Your task to perform on an android device: Open accessibility settings Image 0: 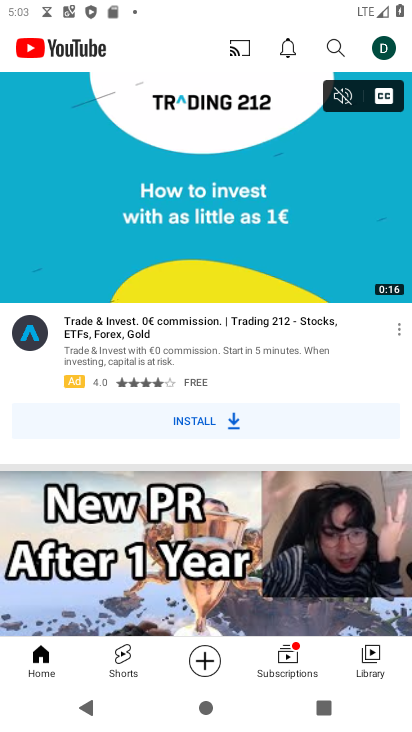
Step 0: press back button
Your task to perform on an android device: Open accessibility settings Image 1: 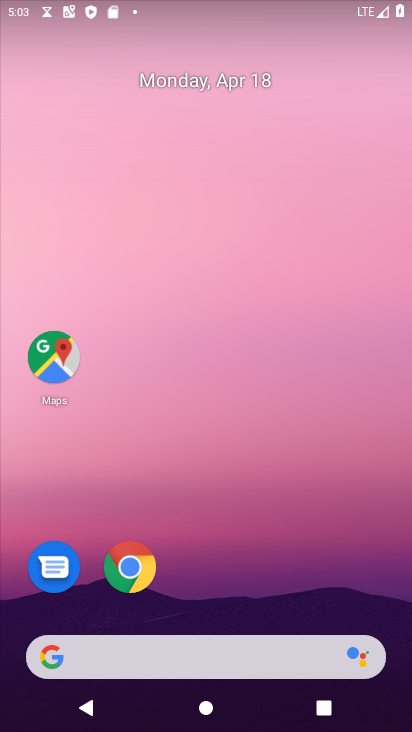
Step 1: drag from (235, 575) to (176, 10)
Your task to perform on an android device: Open accessibility settings Image 2: 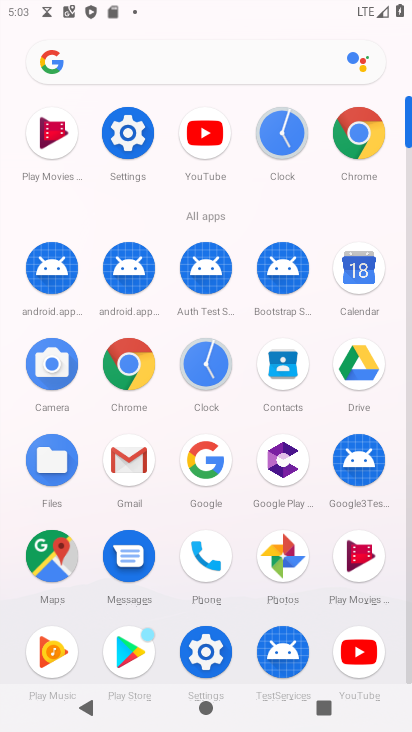
Step 2: click (123, 150)
Your task to perform on an android device: Open accessibility settings Image 3: 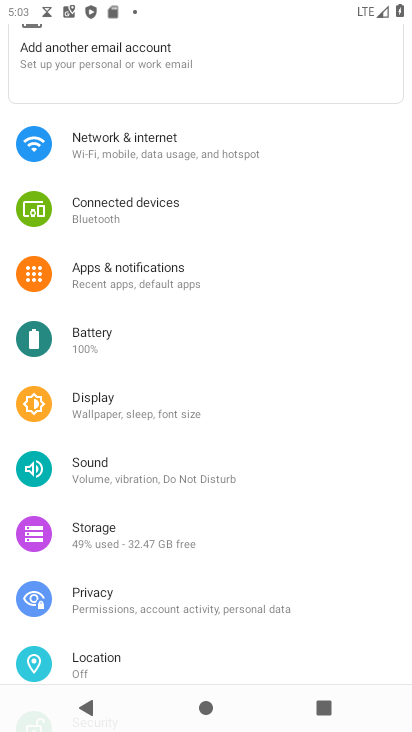
Step 3: drag from (171, 587) to (175, 513)
Your task to perform on an android device: Open accessibility settings Image 4: 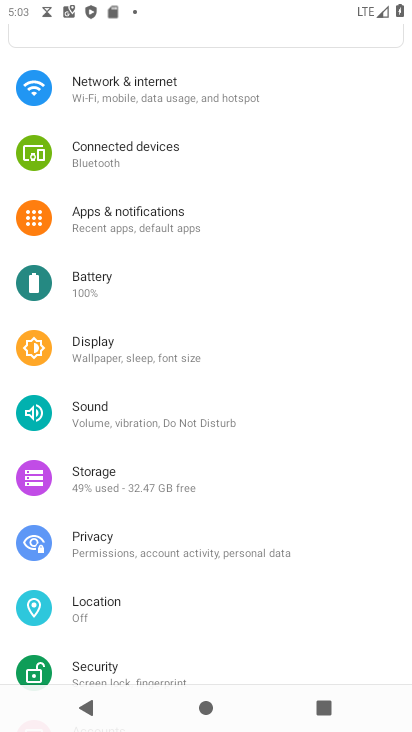
Step 4: drag from (168, 593) to (183, 518)
Your task to perform on an android device: Open accessibility settings Image 5: 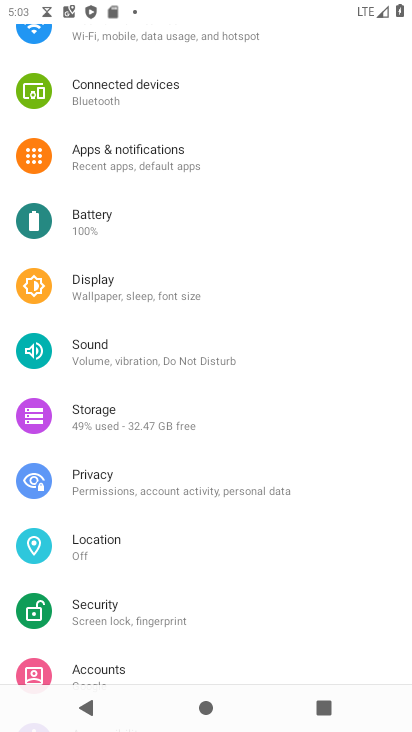
Step 5: drag from (204, 620) to (217, 544)
Your task to perform on an android device: Open accessibility settings Image 6: 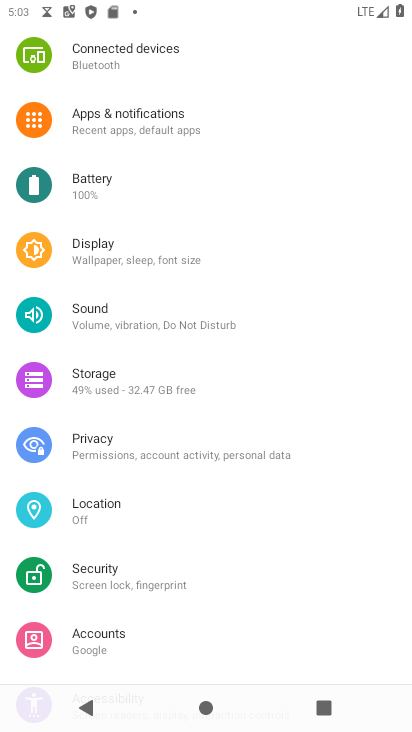
Step 6: drag from (173, 656) to (184, 605)
Your task to perform on an android device: Open accessibility settings Image 7: 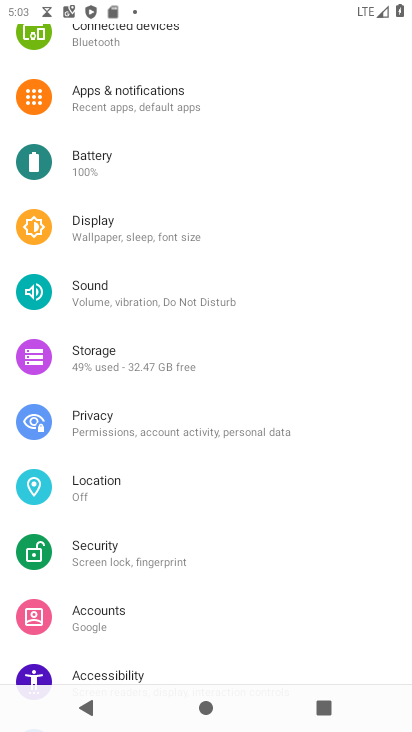
Step 7: drag from (163, 638) to (168, 570)
Your task to perform on an android device: Open accessibility settings Image 8: 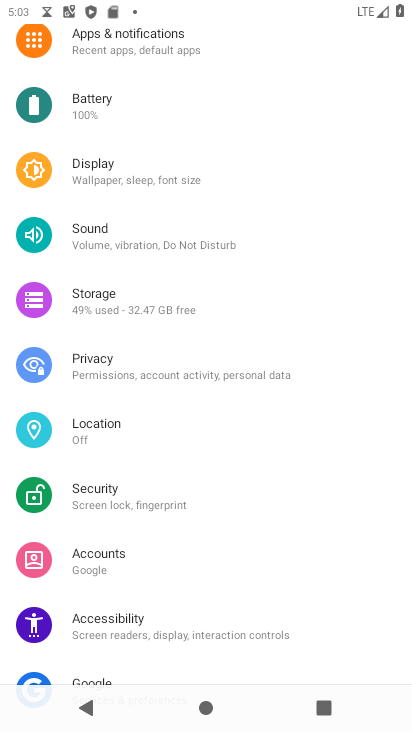
Step 8: click (149, 634)
Your task to perform on an android device: Open accessibility settings Image 9: 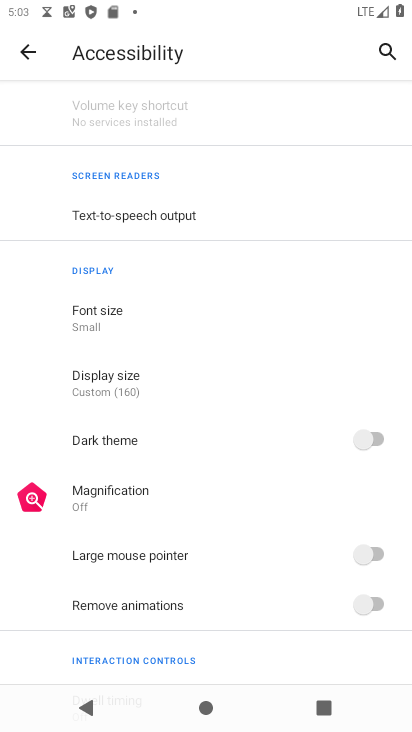
Step 9: task complete